Your task to perform on an android device: set the timer Image 0: 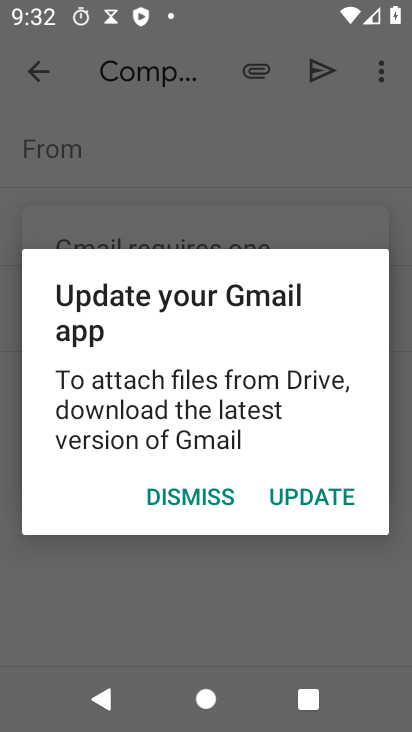
Step 0: press back button
Your task to perform on an android device: set the timer Image 1: 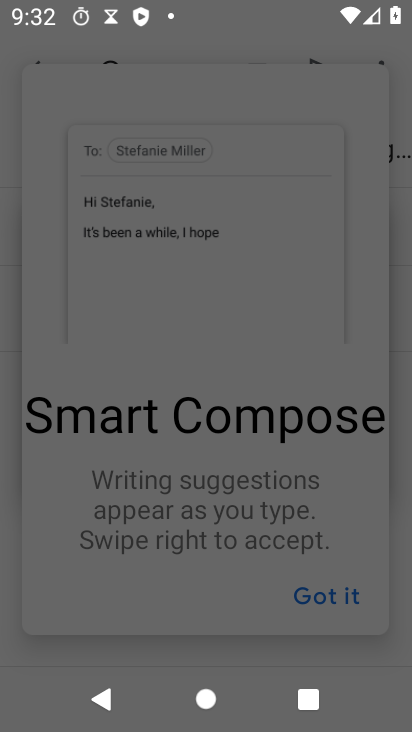
Step 1: press home button
Your task to perform on an android device: set the timer Image 2: 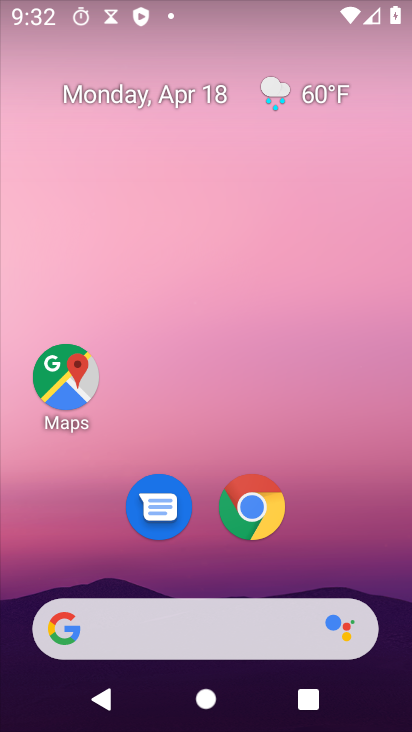
Step 2: drag from (321, 495) to (329, 73)
Your task to perform on an android device: set the timer Image 3: 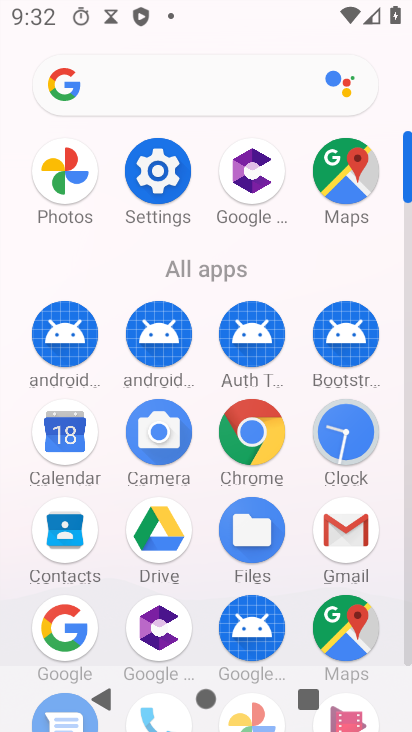
Step 3: click (344, 438)
Your task to perform on an android device: set the timer Image 4: 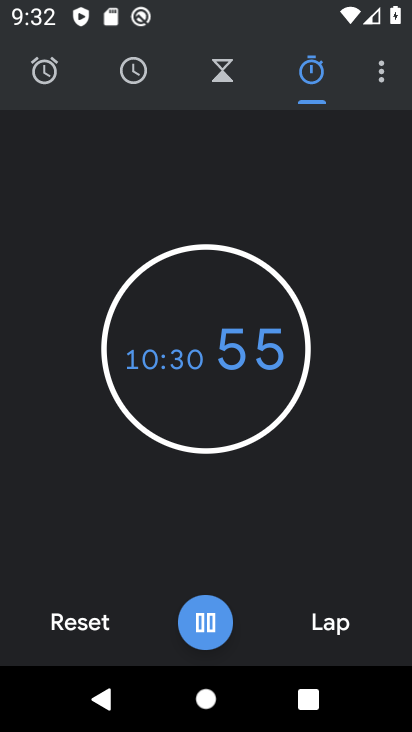
Step 4: click (231, 99)
Your task to perform on an android device: set the timer Image 5: 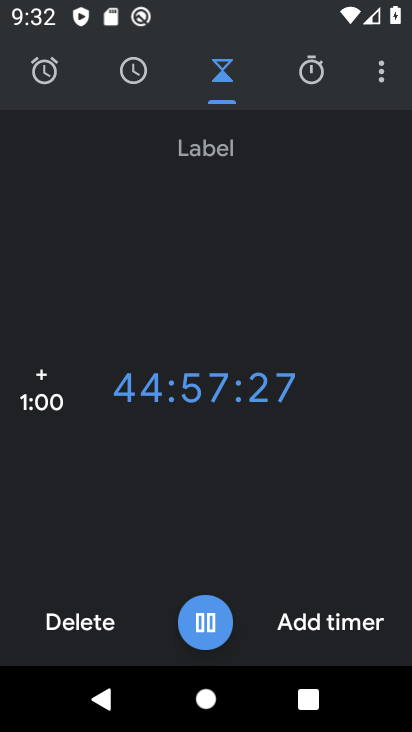
Step 5: click (297, 616)
Your task to perform on an android device: set the timer Image 6: 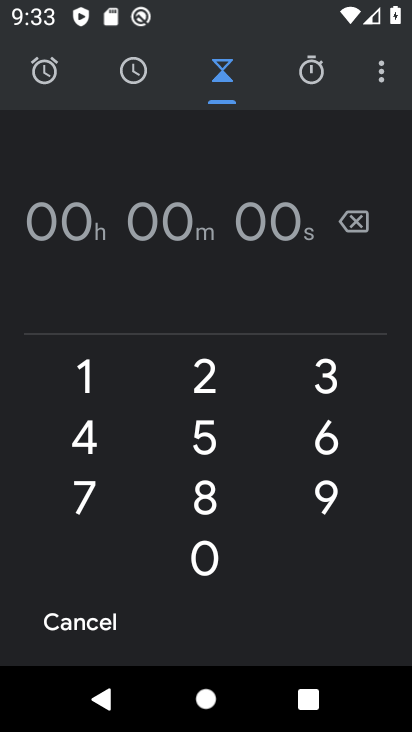
Step 6: click (81, 391)
Your task to perform on an android device: set the timer Image 7: 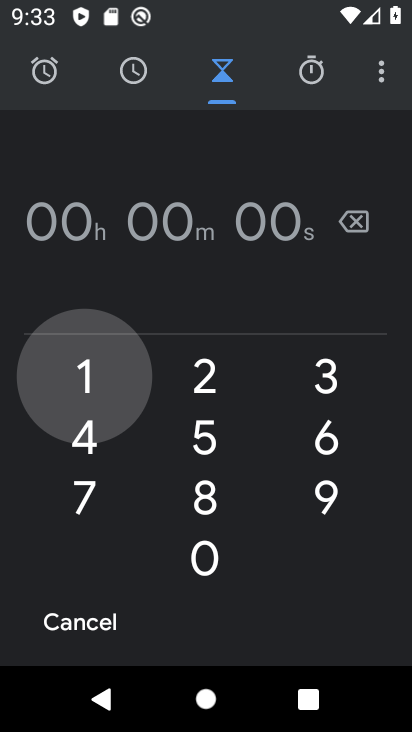
Step 7: click (82, 390)
Your task to perform on an android device: set the timer Image 8: 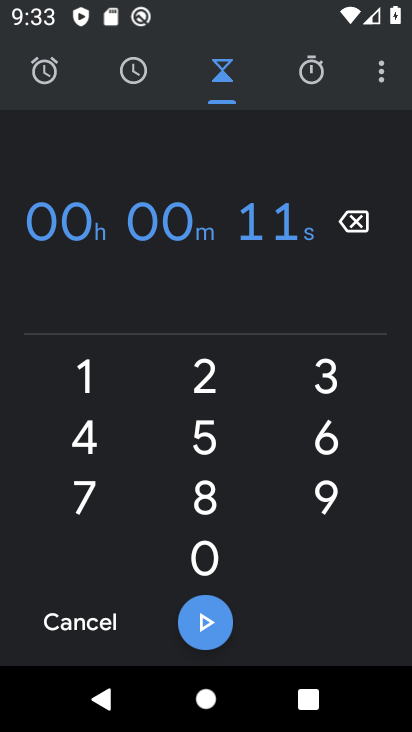
Step 8: click (82, 390)
Your task to perform on an android device: set the timer Image 9: 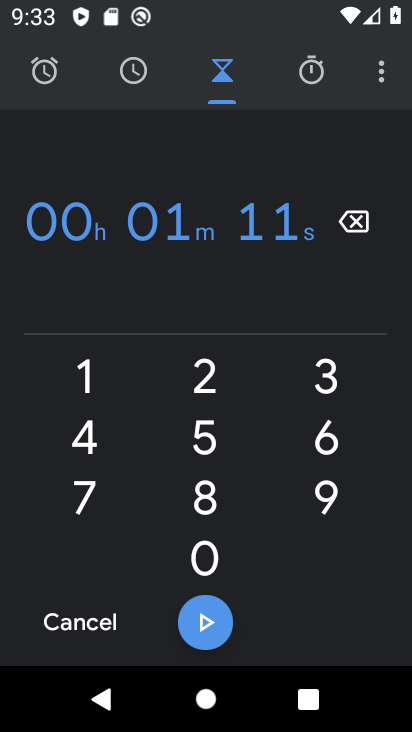
Step 9: click (88, 383)
Your task to perform on an android device: set the timer Image 10: 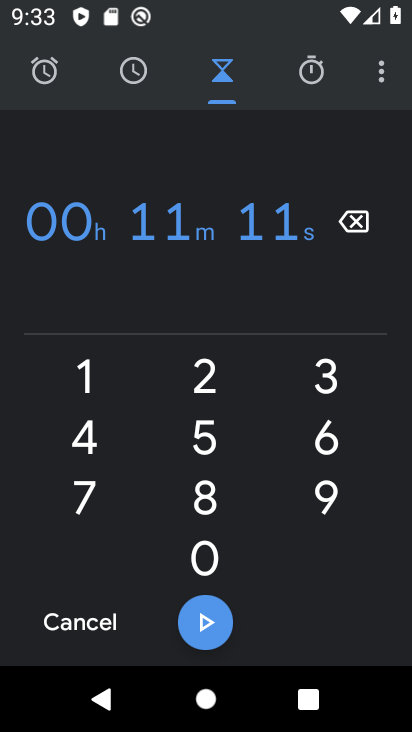
Step 10: click (88, 383)
Your task to perform on an android device: set the timer Image 11: 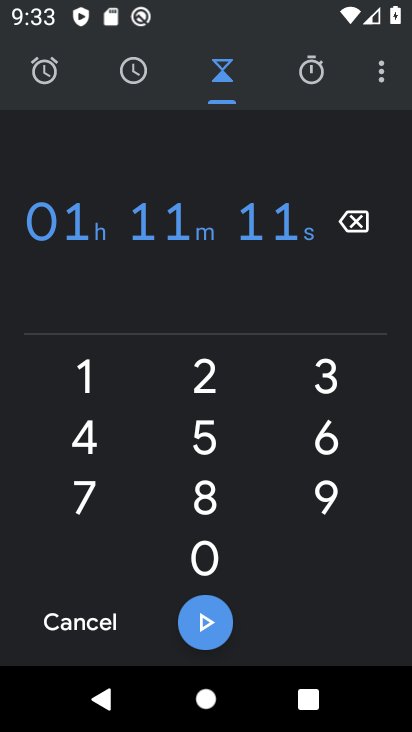
Step 11: click (88, 383)
Your task to perform on an android device: set the timer Image 12: 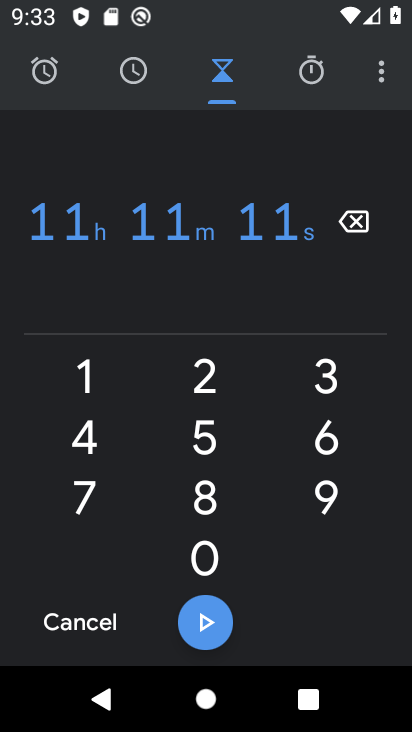
Step 12: click (204, 621)
Your task to perform on an android device: set the timer Image 13: 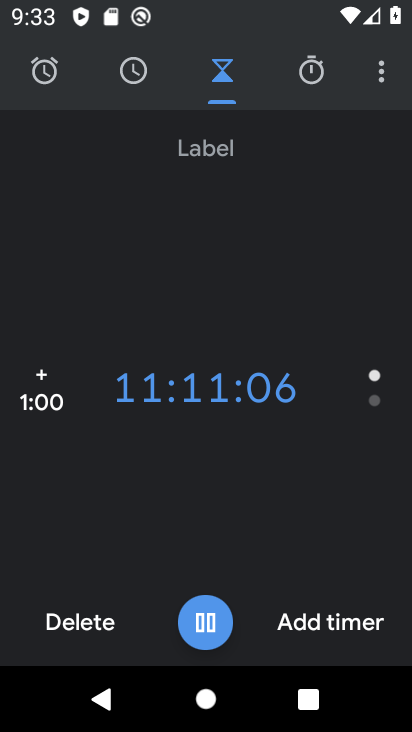
Step 13: task complete